Your task to perform on an android device: make emails show in primary in the gmail app Image 0: 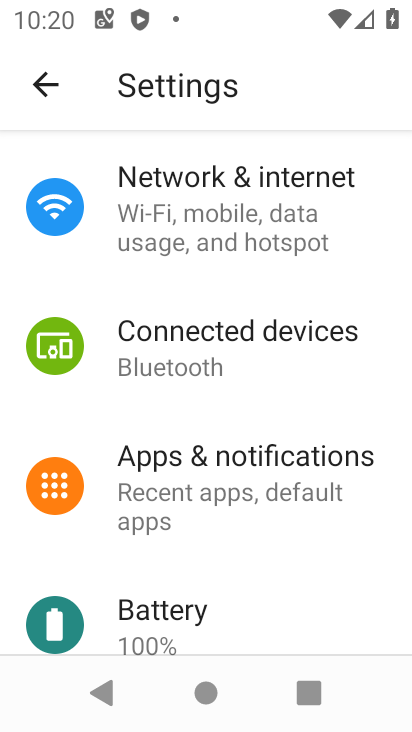
Step 0: press home button
Your task to perform on an android device: make emails show in primary in the gmail app Image 1: 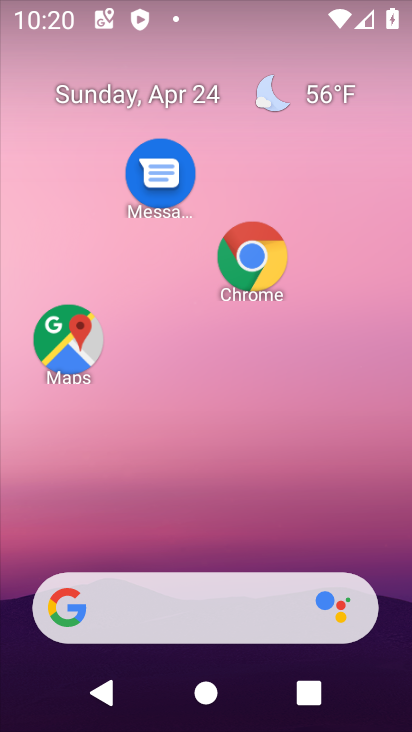
Step 1: drag from (221, 717) to (221, 114)
Your task to perform on an android device: make emails show in primary in the gmail app Image 2: 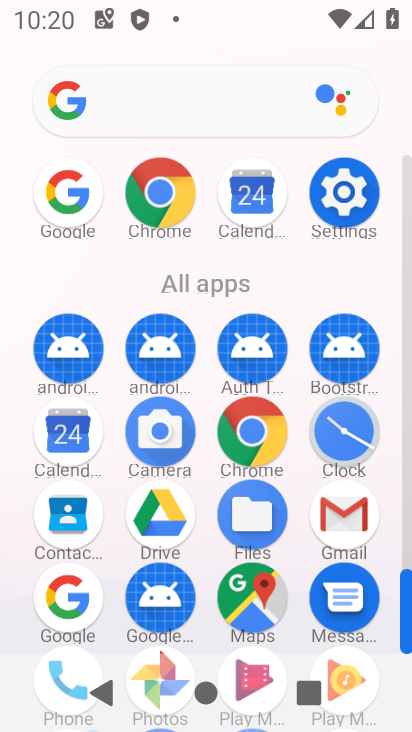
Step 2: click (358, 515)
Your task to perform on an android device: make emails show in primary in the gmail app Image 3: 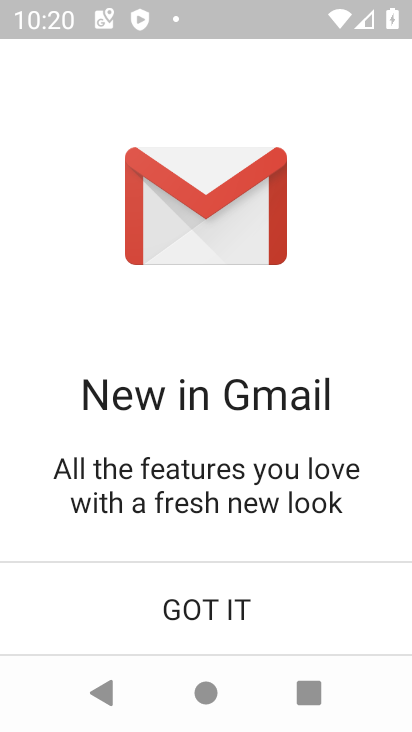
Step 3: click (196, 605)
Your task to perform on an android device: make emails show in primary in the gmail app Image 4: 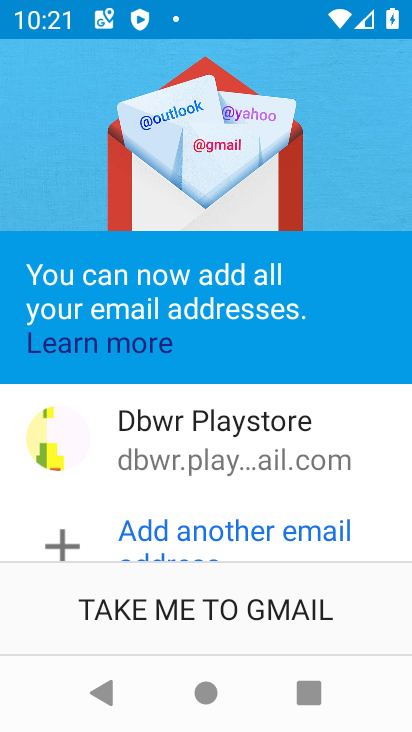
Step 4: click (201, 605)
Your task to perform on an android device: make emails show in primary in the gmail app Image 5: 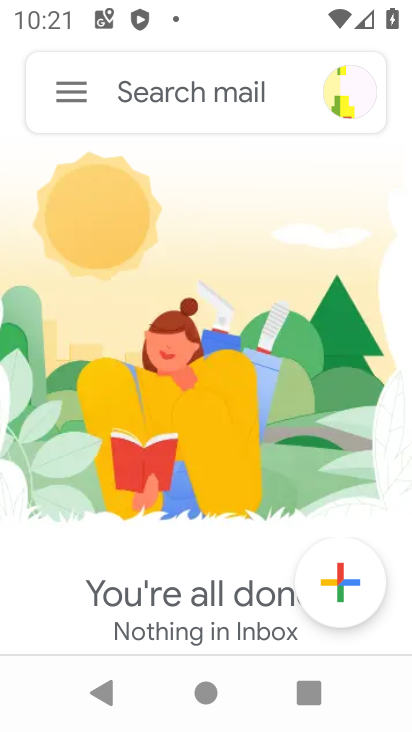
Step 5: click (68, 92)
Your task to perform on an android device: make emails show in primary in the gmail app Image 6: 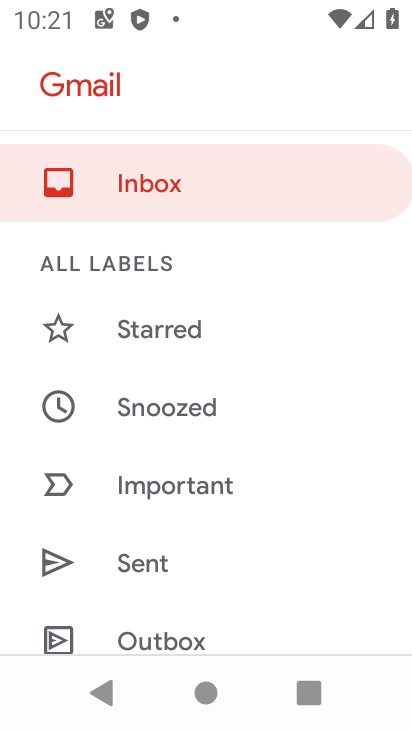
Step 6: drag from (187, 623) to (170, 327)
Your task to perform on an android device: make emails show in primary in the gmail app Image 7: 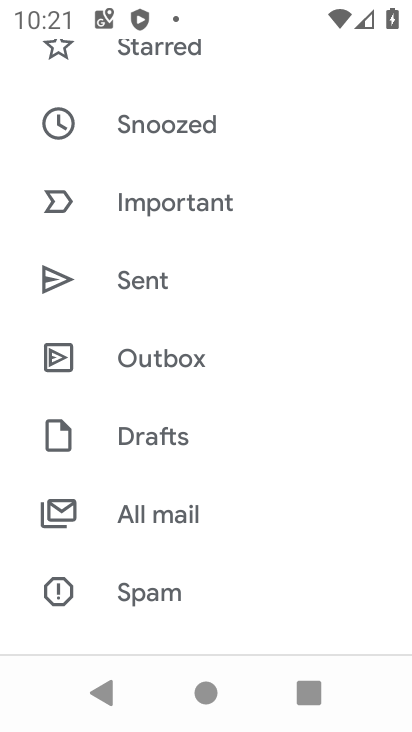
Step 7: drag from (202, 622) to (195, 213)
Your task to perform on an android device: make emails show in primary in the gmail app Image 8: 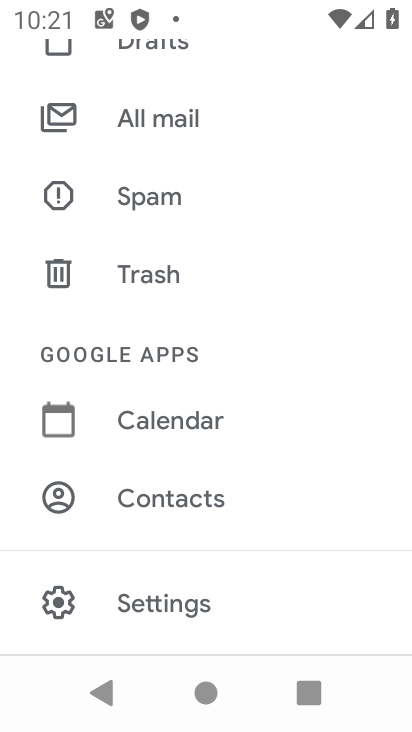
Step 8: drag from (214, 633) to (205, 302)
Your task to perform on an android device: make emails show in primary in the gmail app Image 9: 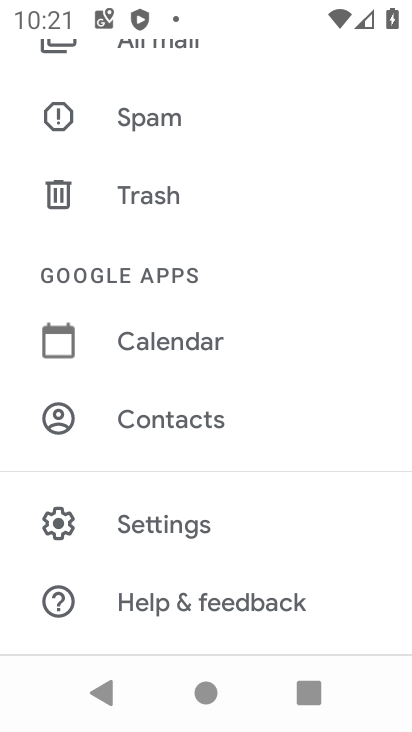
Step 9: click (159, 523)
Your task to perform on an android device: make emails show in primary in the gmail app Image 10: 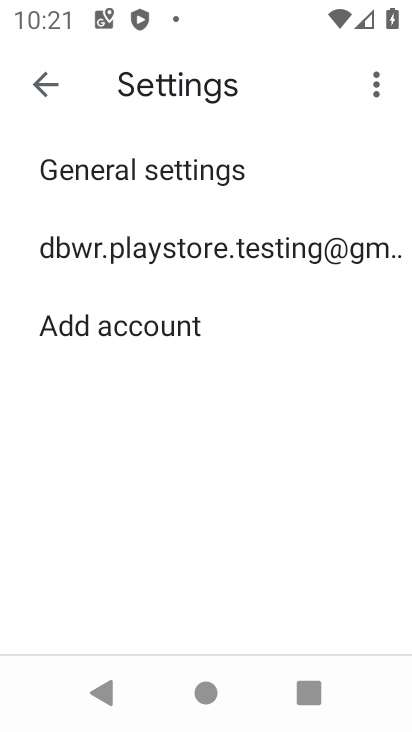
Step 10: click (178, 242)
Your task to perform on an android device: make emails show in primary in the gmail app Image 11: 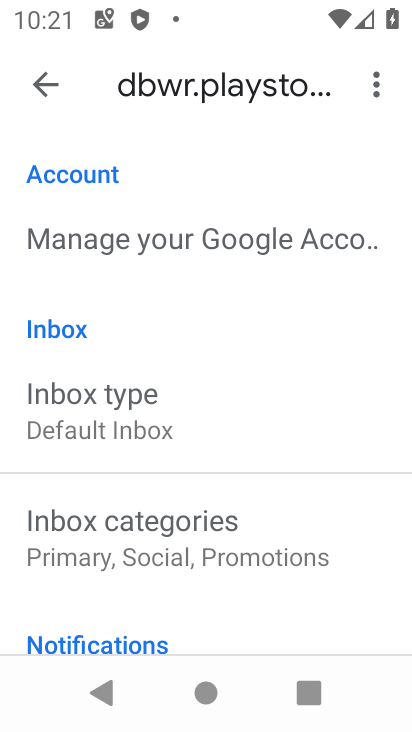
Step 11: drag from (190, 620) to (190, 395)
Your task to perform on an android device: make emails show in primary in the gmail app Image 12: 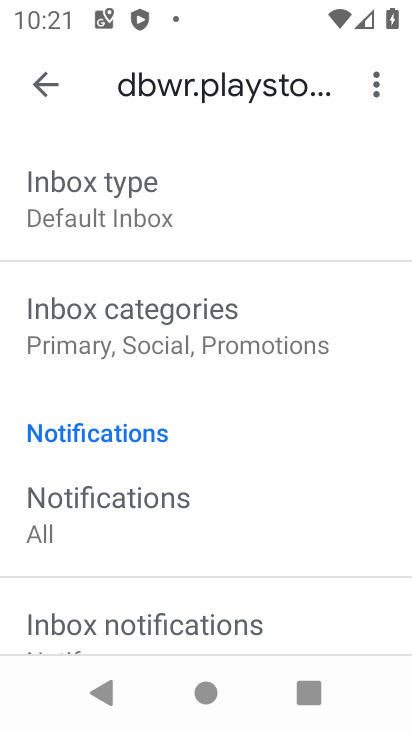
Step 12: click (120, 308)
Your task to perform on an android device: make emails show in primary in the gmail app Image 13: 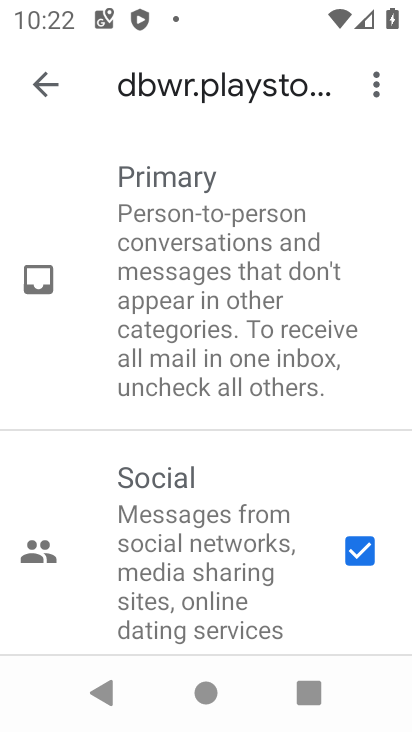
Step 13: drag from (195, 598) to (195, 363)
Your task to perform on an android device: make emails show in primary in the gmail app Image 14: 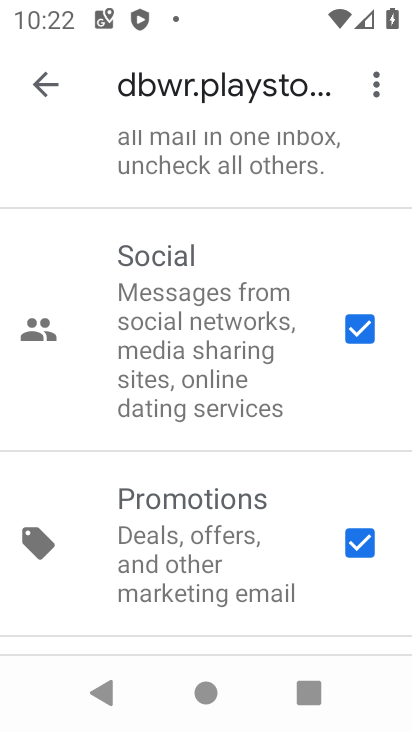
Step 14: click (361, 324)
Your task to perform on an android device: make emails show in primary in the gmail app Image 15: 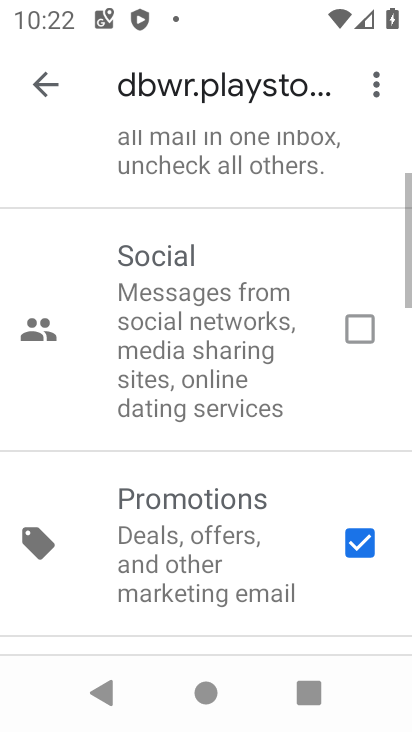
Step 15: click (353, 545)
Your task to perform on an android device: make emails show in primary in the gmail app Image 16: 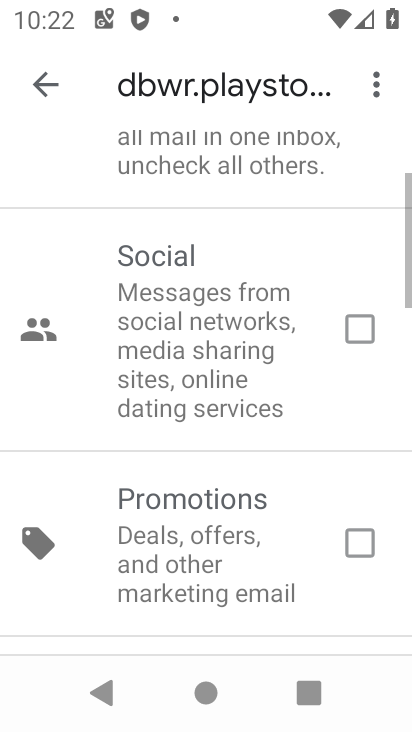
Step 16: drag from (229, 602) to (233, 243)
Your task to perform on an android device: make emails show in primary in the gmail app Image 17: 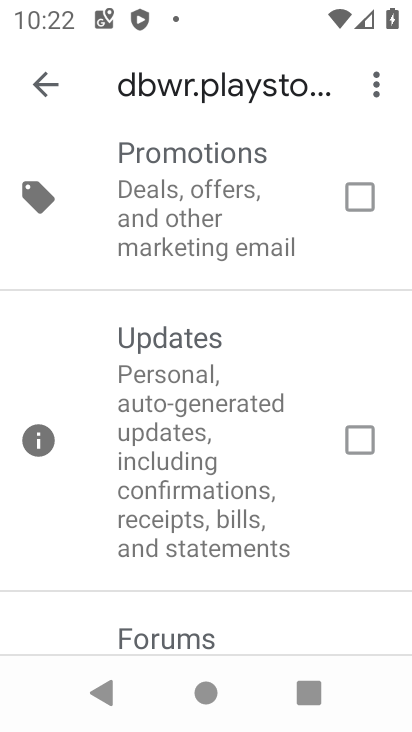
Step 17: click (42, 83)
Your task to perform on an android device: make emails show in primary in the gmail app Image 18: 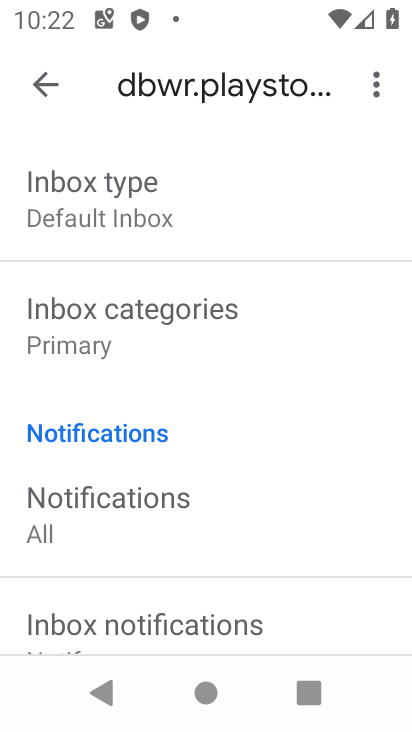
Step 18: task complete